Your task to perform on an android device: Go to Maps Image 0: 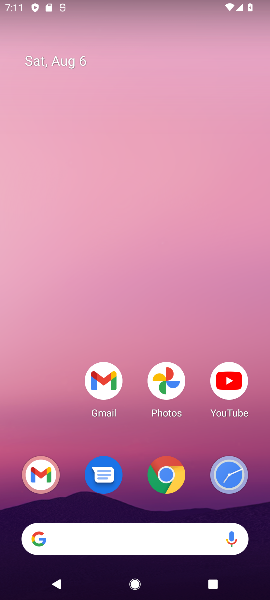
Step 0: drag from (132, 438) to (150, 137)
Your task to perform on an android device: Go to Maps Image 1: 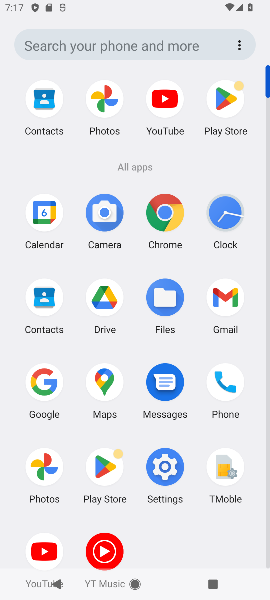
Step 1: click (96, 381)
Your task to perform on an android device: Go to Maps Image 2: 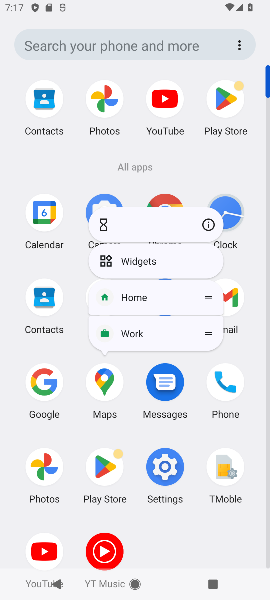
Step 2: click (108, 387)
Your task to perform on an android device: Go to Maps Image 3: 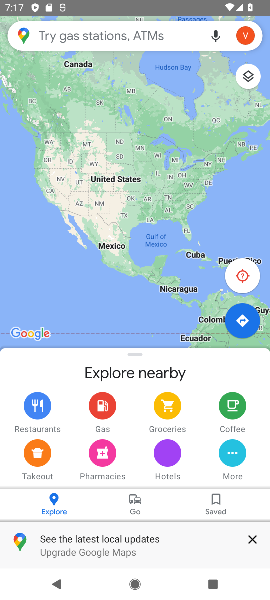
Step 3: task complete